Your task to perform on an android device: stop showing notifications on the lock screen Image 0: 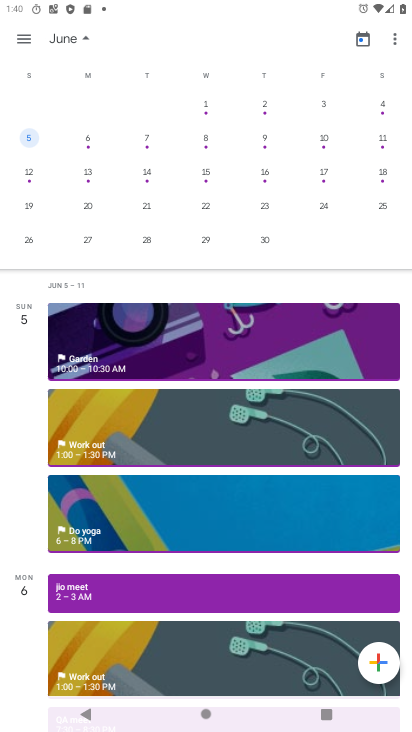
Step 0: press home button
Your task to perform on an android device: stop showing notifications on the lock screen Image 1: 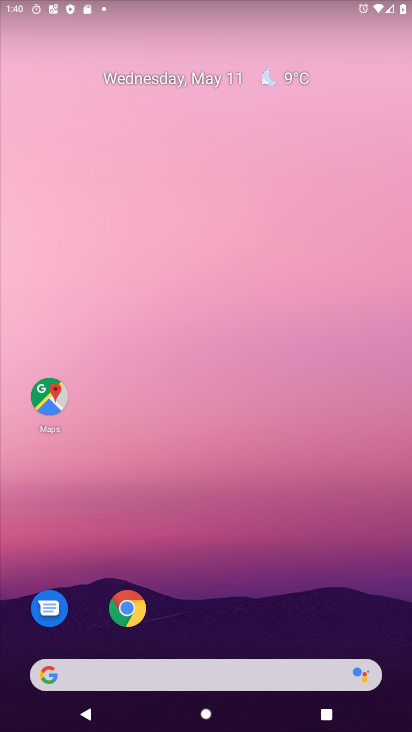
Step 1: drag from (210, 691) to (190, 70)
Your task to perform on an android device: stop showing notifications on the lock screen Image 2: 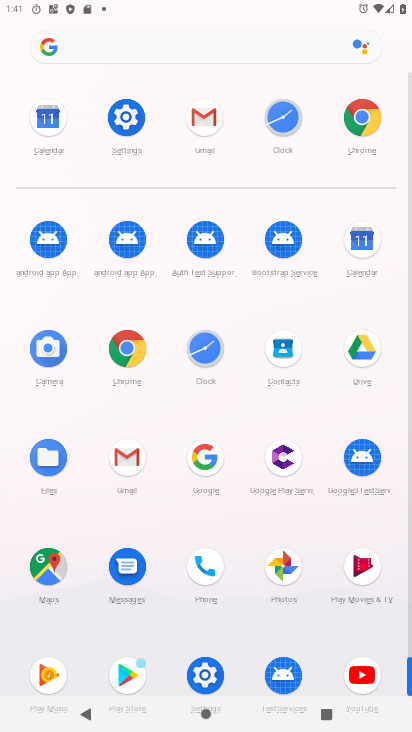
Step 2: click (139, 132)
Your task to perform on an android device: stop showing notifications on the lock screen Image 3: 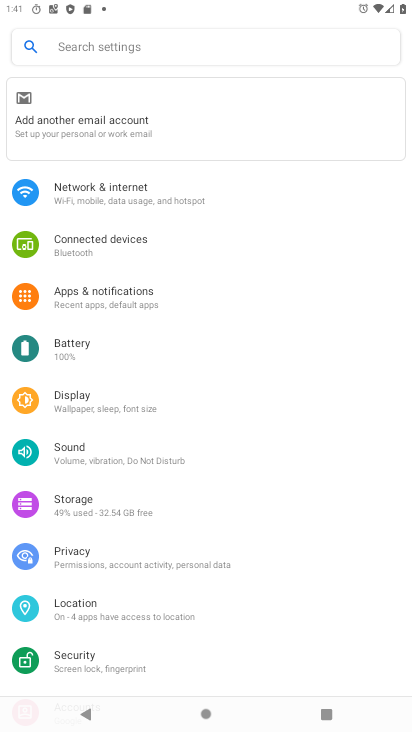
Step 3: drag from (189, 528) to (188, 411)
Your task to perform on an android device: stop showing notifications on the lock screen Image 4: 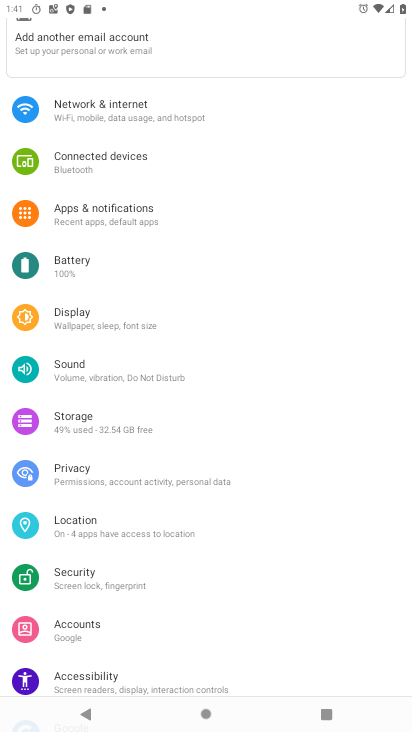
Step 4: click (174, 212)
Your task to perform on an android device: stop showing notifications on the lock screen Image 5: 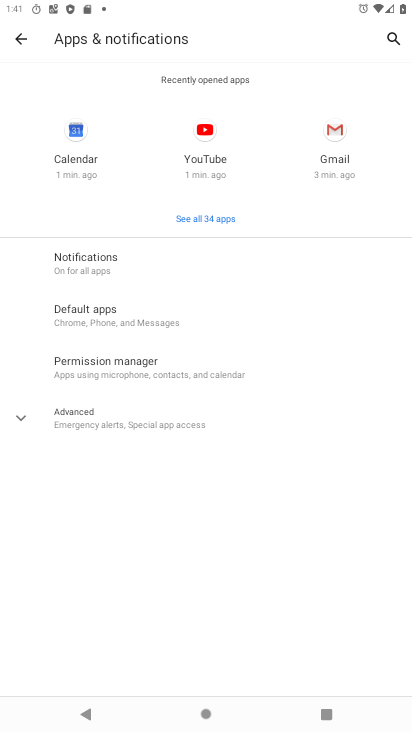
Step 5: click (205, 272)
Your task to perform on an android device: stop showing notifications on the lock screen Image 6: 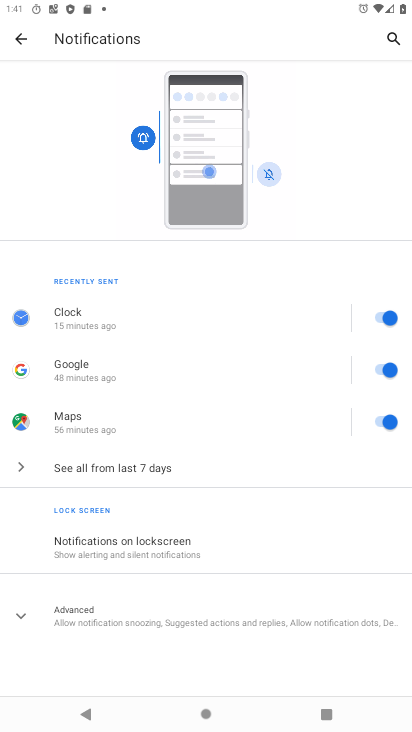
Step 6: click (215, 624)
Your task to perform on an android device: stop showing notifications on the lock screen Image 7: 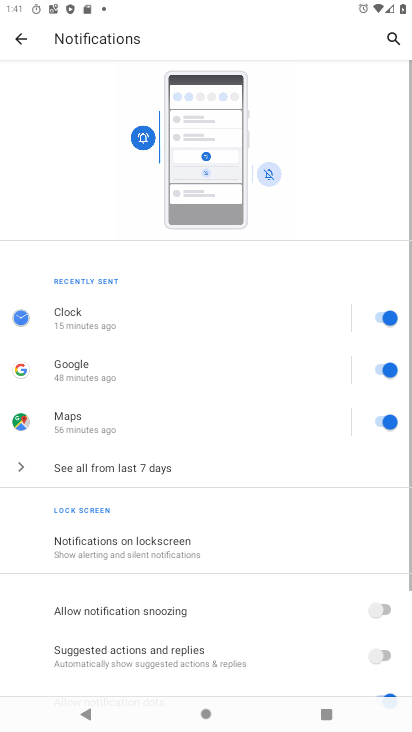
Step 7: click (199, 557)
Your task to perform on an android device: stop showing notifications on the lock screen Image 8: 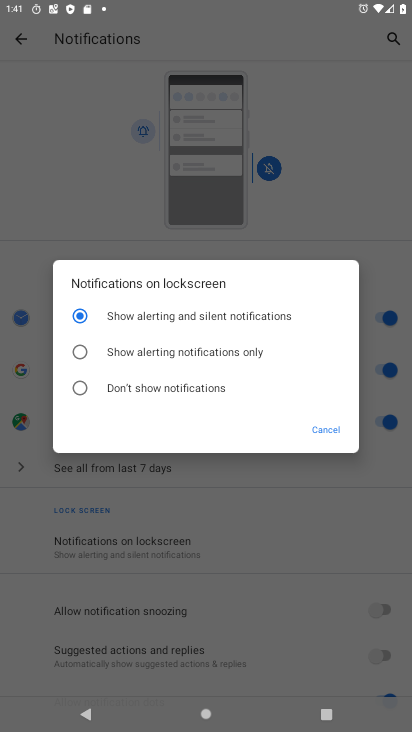
Step 8: click (203, 383)
Your task to perform on an android device: stop showing notifications on the lock screen Image 9: 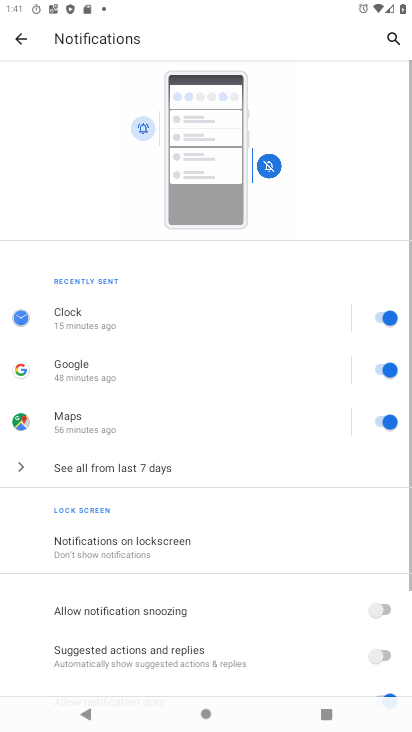
Step 9: task complete